Your task to perform on an android device: turn pop-ups on in chrome Image 0: 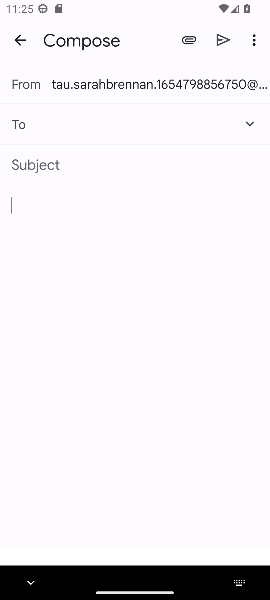
Step 0: press home button
Your task to perform on an android device: turn pop-ups on in chrome Image 1: 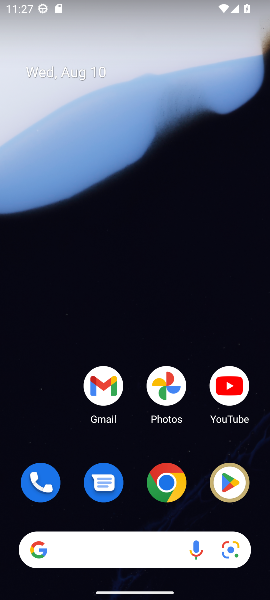
Step 1: click (165, 477)
Your task to perform on an android device: turn pop-ups on in chrome Image 2: 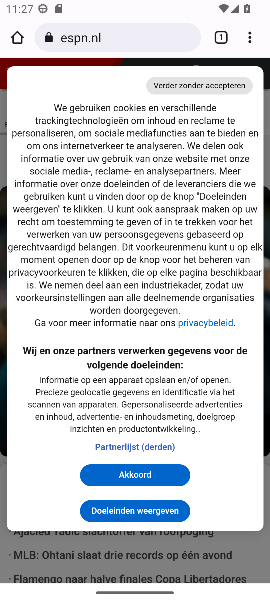
Step 2: click (253, 41)
Your task to perform on an android device: turn pop-ups on in chrome Image 3: 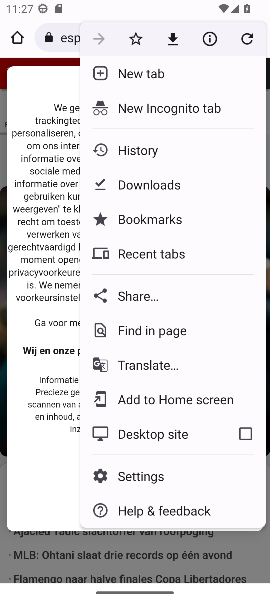
Step 3: task complete